Your task to perform on an android device: delete browsing data in the chrome app Image 0: 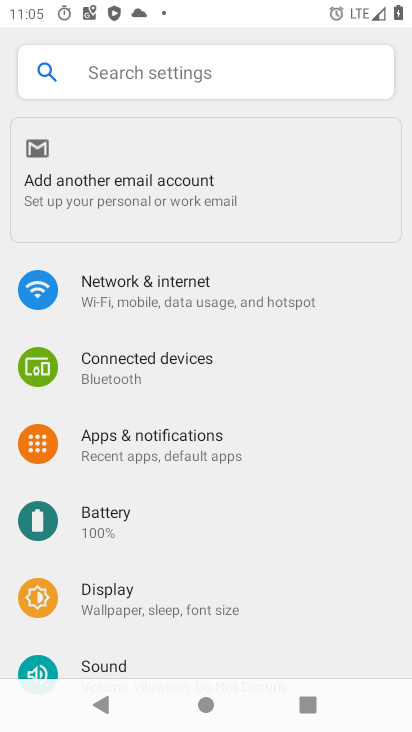
Step 0: press home button
Your task to perform on an android device: delete browsing data in the chrome app Image 1: 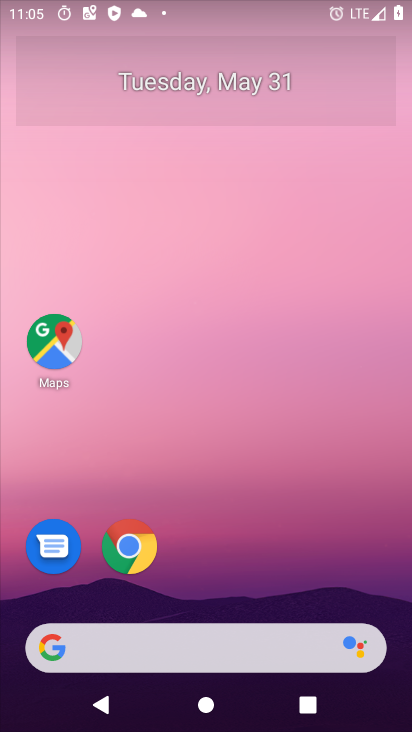
Step 1: click (133, 545)
Your task to perform on an android device: delete browsing data in the chrome app Image 2: 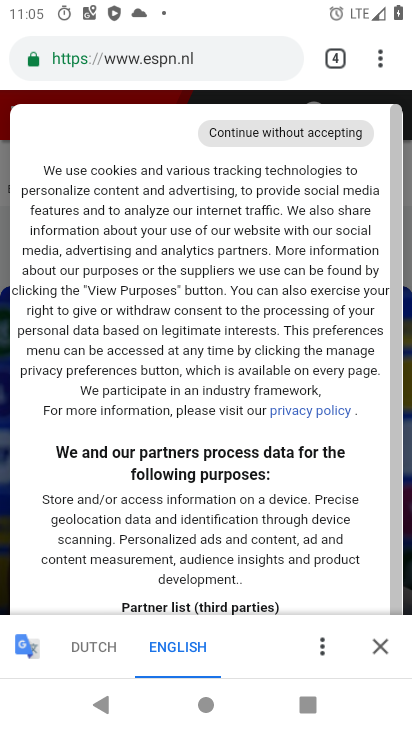
Step 2: click (383, 49)
Your task to perform on an android device: delete browsing data in the chrome app Image 3: 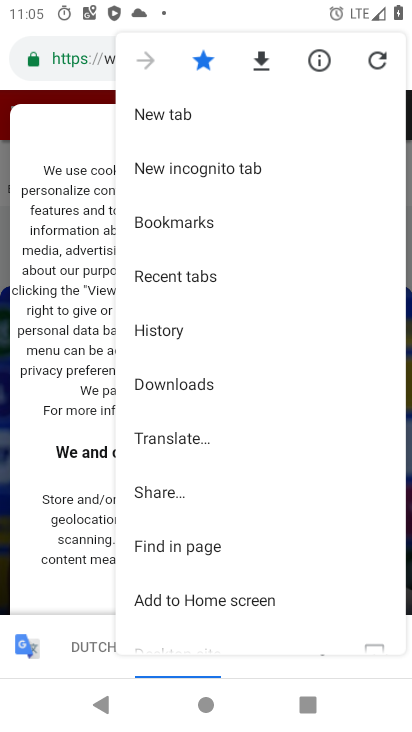
Step 3: drag from (253, 531) to (242, 310)
Your task to perform on an android device: delete browsing data in the chrome app Image 4: 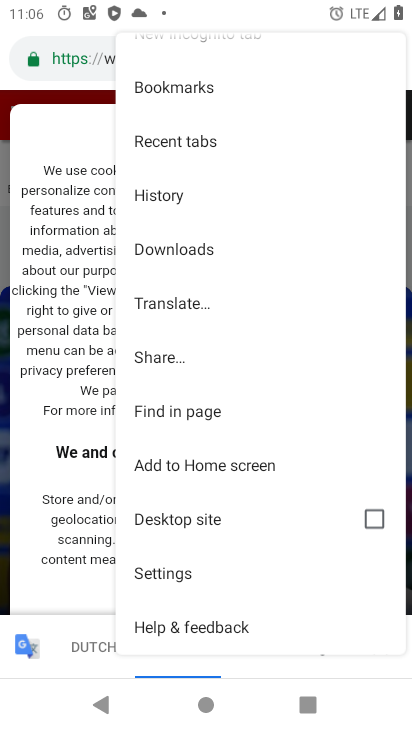
Step 4: click (149, 560)
Your task to perform on an android device: delete browsing data in the chrome app Image 5: 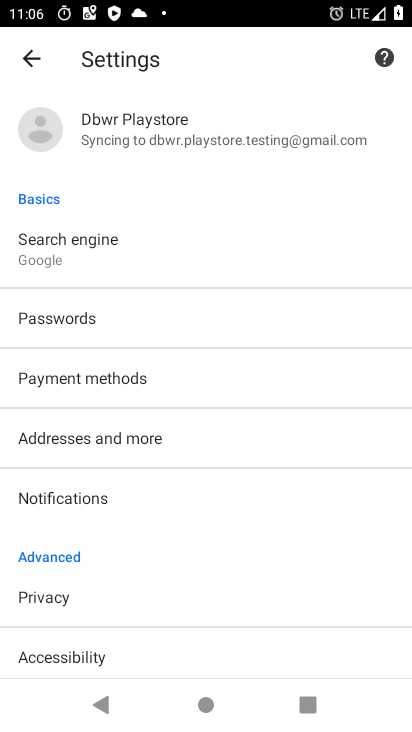
Step 5: drag from (170, 578) to (196, 319)
Your task to perform on an android device: delete browsing data in the chrome app Image 6: 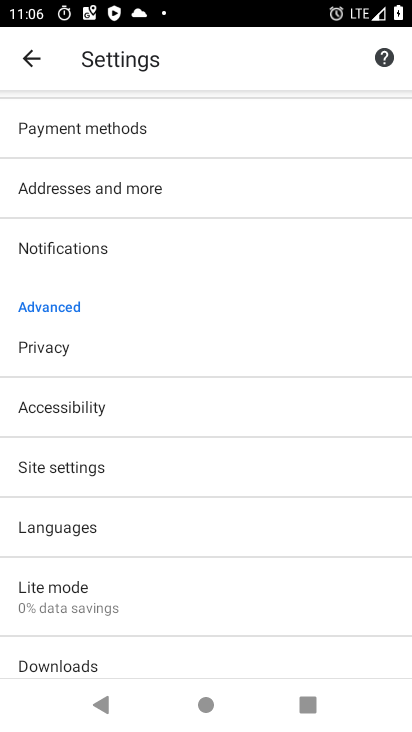
Step 6: drag from (108, 582) to (143, 270)
Your task to perform on an android device: delete browsing data in the chrome app Image 7: 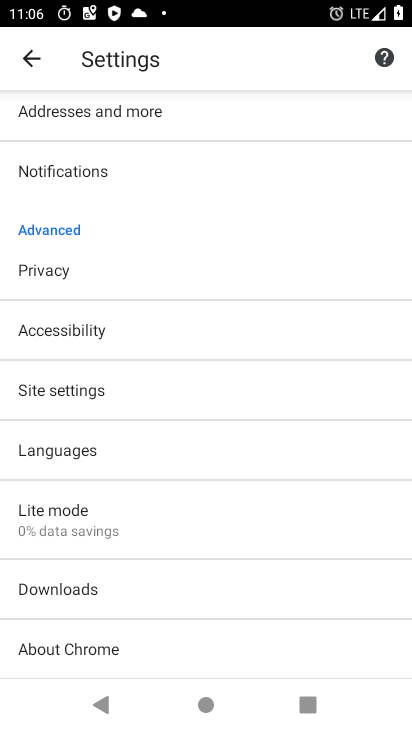
Step 7: click (52, 272)
Your task to perform on an android device: delete browsing data in the chrome app Image 8: 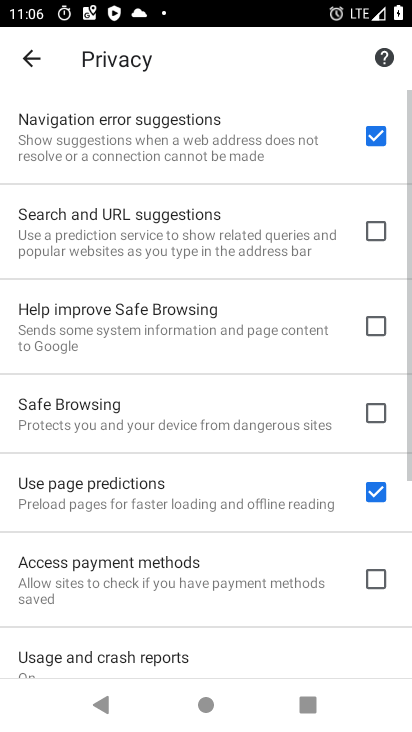
Step 8: drag from (32, 531) to (76, 230)
Your task to perform on an android device: delete browsing data in the chrome app Image 9: 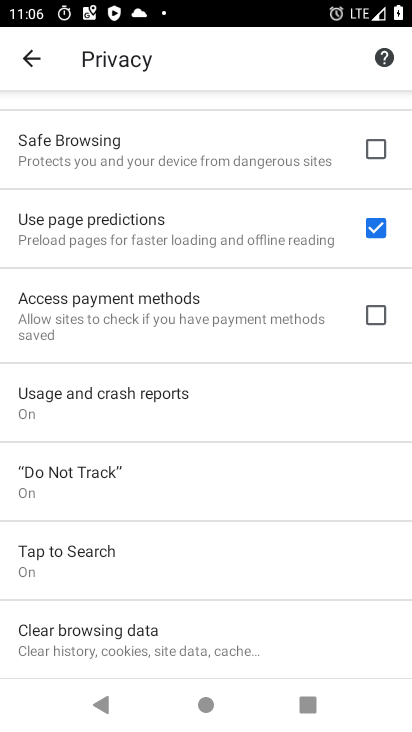
Step 9: click (62, 638)
Your task to perform on an android device: delete browsing data in the chrome app Image 10: 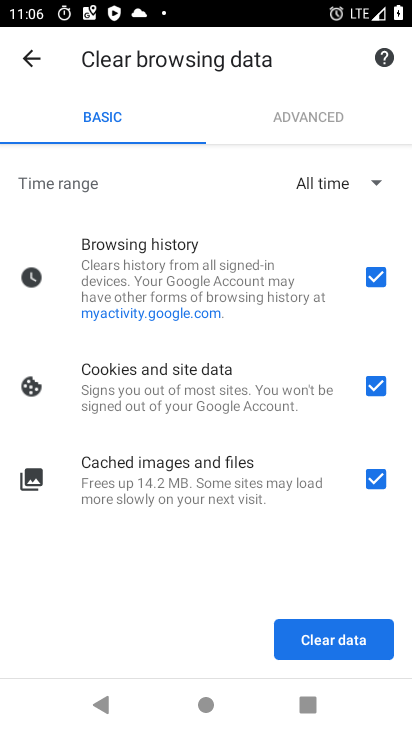
Step 10: click (306, 643)
Your task to perform on an android device: delete browsing data in the chrome app Image 11: 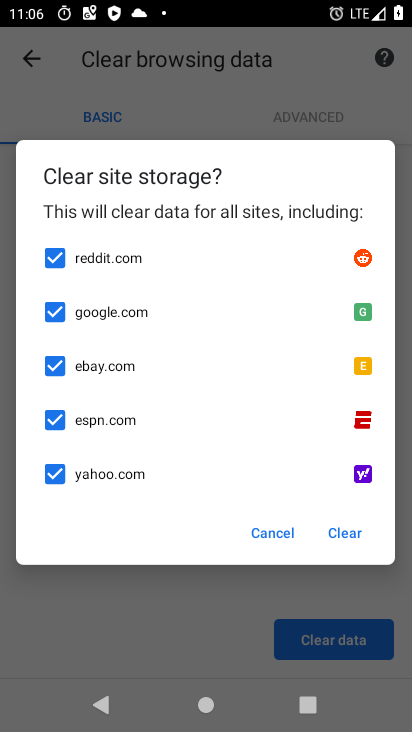
Step 11: click (336, 523)
Your task to perform on an android device: delete browsing data in the chrome app Image 12: 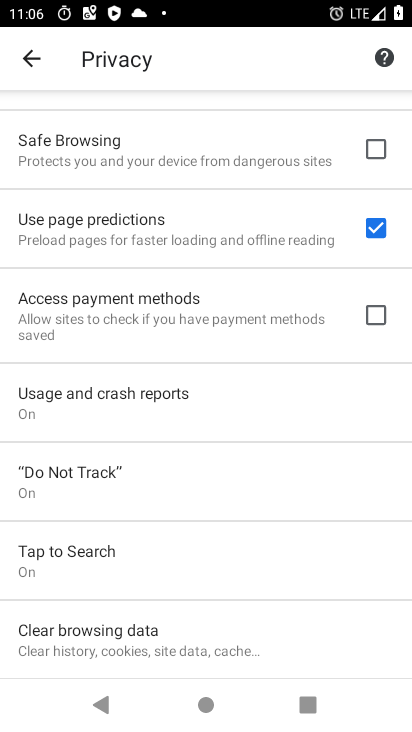
Step 12: task complete